Your task to perform on an android device: turn off notifications in google photos Image 0: 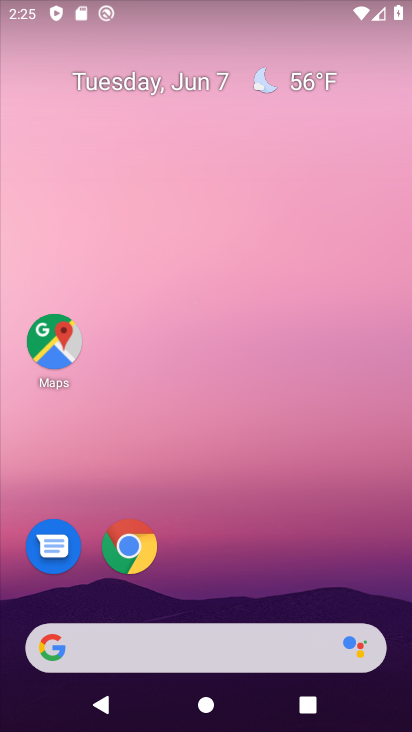
Step 0: drag from (256, 540) to (382, 0)
Your task to perform on an android device: turn off notifications in google photos Image 1: 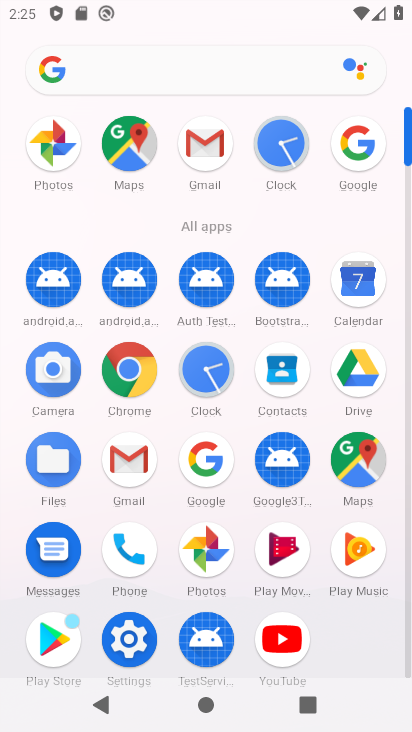
Step 1: click (213, 535)
Your task to perform on an android device: turn off notifications in google photos Image 2: 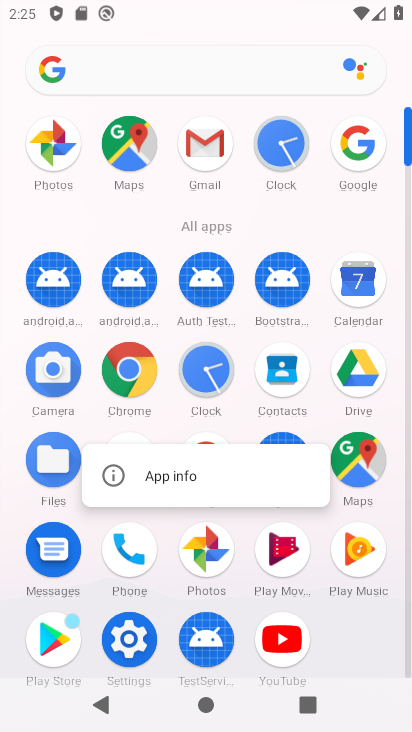
Step 2: click (216, 494)
Your task to perform on an android device: turn off notifications in google photos Image 3: 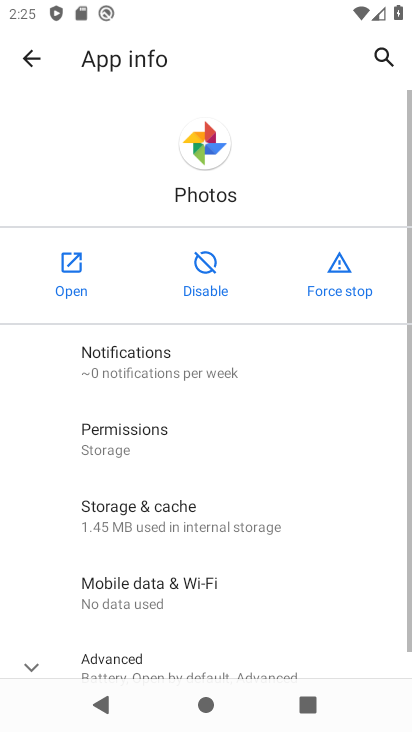
Step 3: click (188, 361)
Your task to perform on an android device: turn off notifications in google photos Image 4: 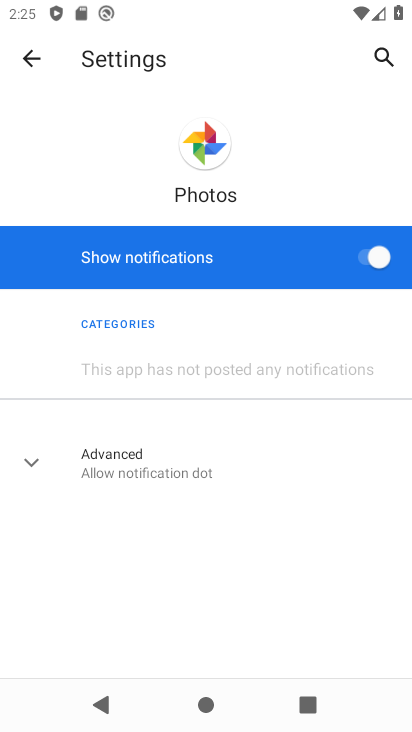
Step 4: click (264, 267)
Your task to perform on an android device: turn off notifications in google photos Image 5: 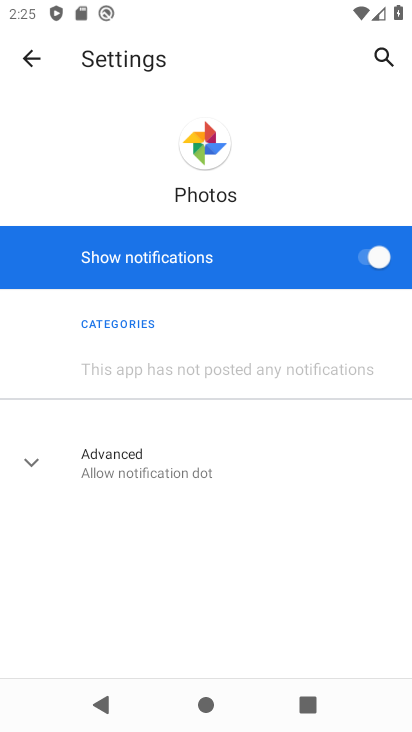
Step 5: click (287, 256)
Your task to perform on an android device: turn off notifications in google photos Image 6: 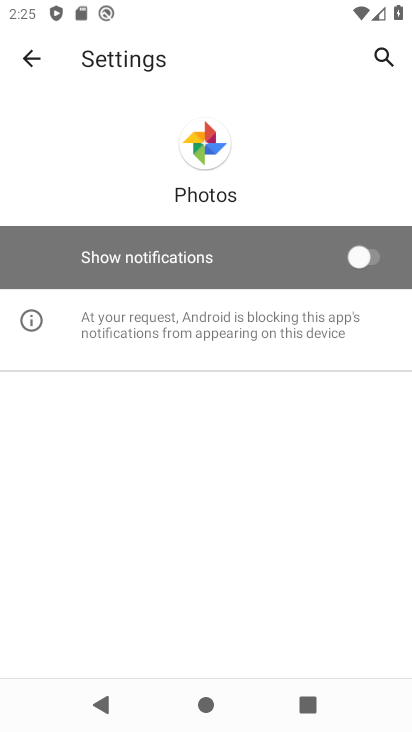
Step 6: task complete